Your task to perform on an android device: Open Google Maps Image 0: 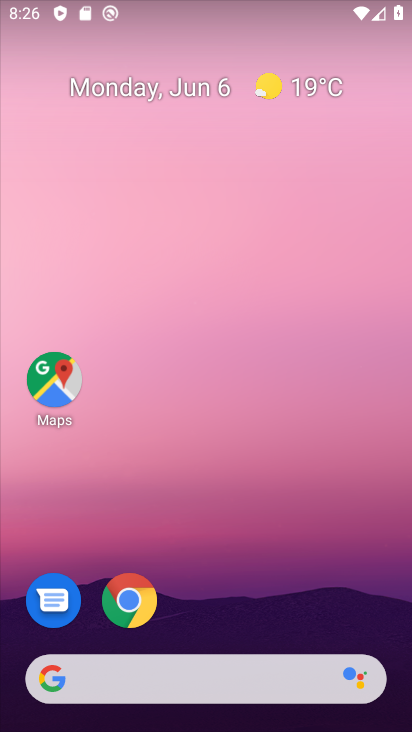
Step 0: click (65, 380)
Your task to perform on an android device: Open Google Maps Image 1: 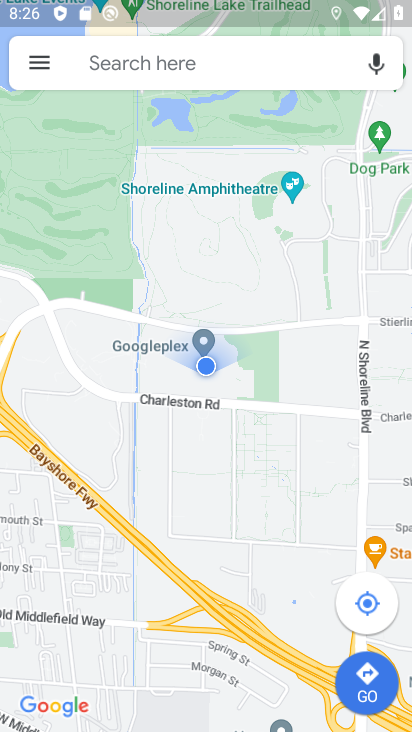
Step 1: task complete